Your task to perform on an android device: When is my next appointment? Image 0: 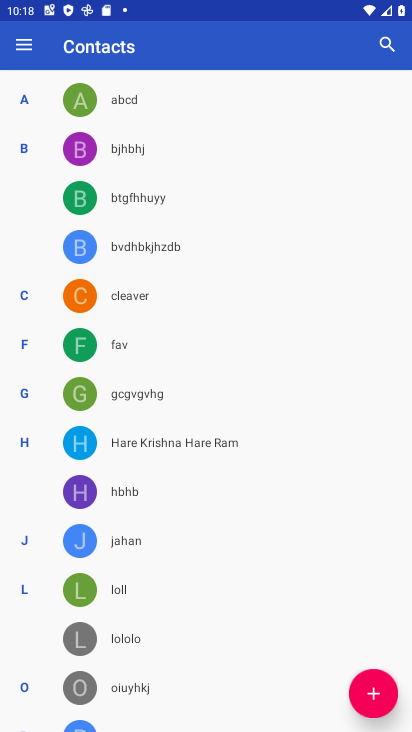
Step 0: press home button
Your task to perform on an android device: When is my next appointment? Image 1: 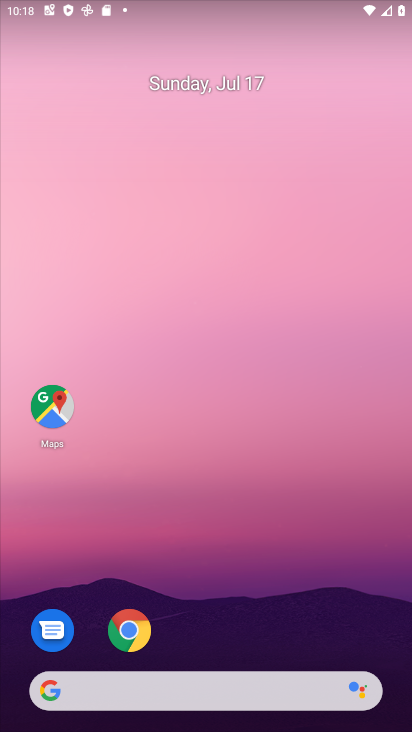
Step 1: drag from (328, 652) to (168, 84)
Your task to perform on an android device: When is my next appointment? Image 2: 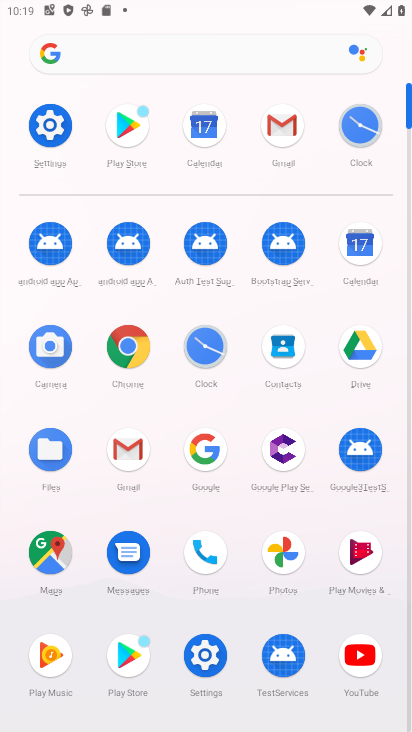
Step 2: click (42, 151)
Your task to perform on an android device: When is my next appointment? Image 3: 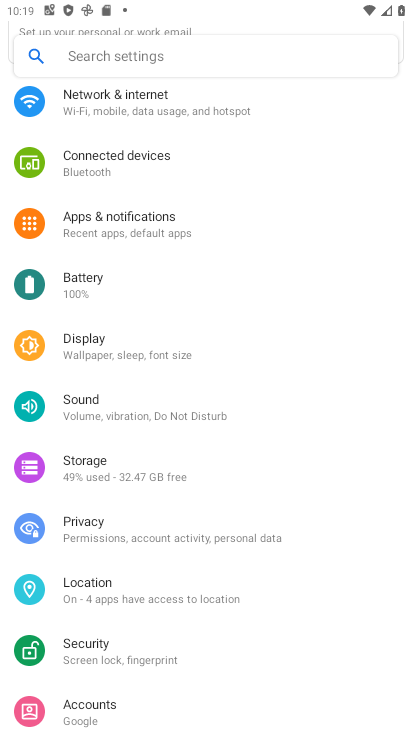
Step 3: press home button
Your task to perform on an android device: When is my next appointment? Image 4: 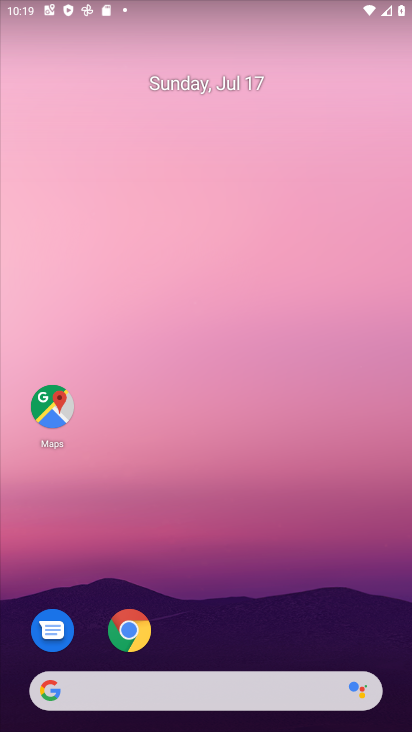
Step 4: drag from (227, 684) to (286, 64)
Your task to perform on an android device: When is my next appointment? Image 5: 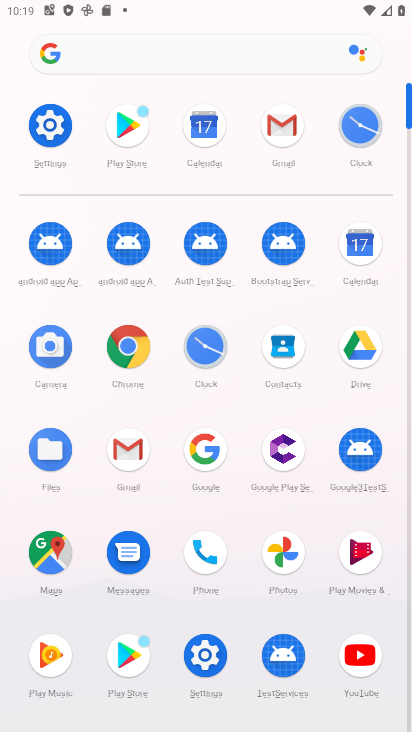
Step 5: click (354, 240)
Your task to perform on an android device: When is my next appointment? Image 6: 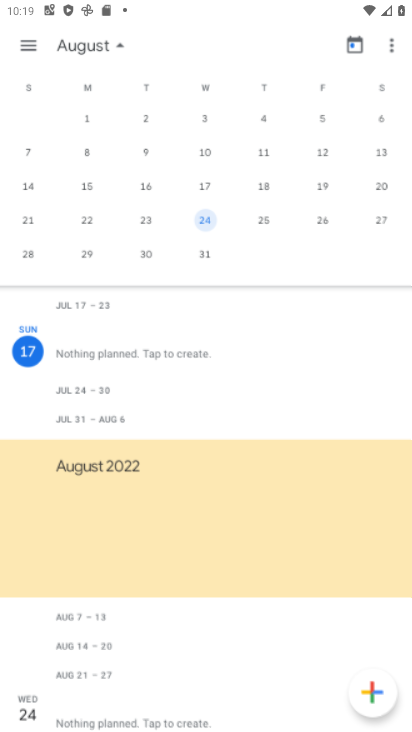
Step 6: task complete